Your task to perform on an android device: Check the weather Image 0: 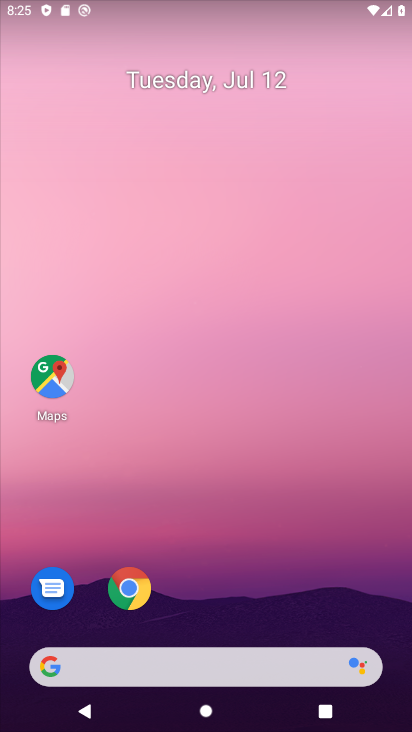
Step 0: drag from (212, 476) to (288, 95)
Your task to perform on an android device: Check the weather Image 1: 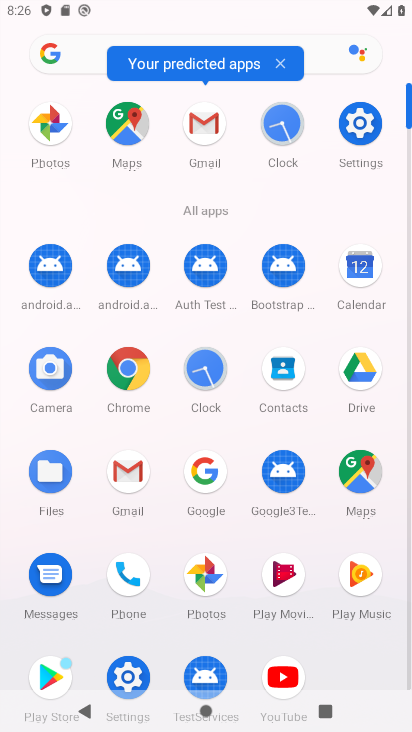
Step 1: click (185, 477)
Your task to perform on an android device: Check the weather Image 2: 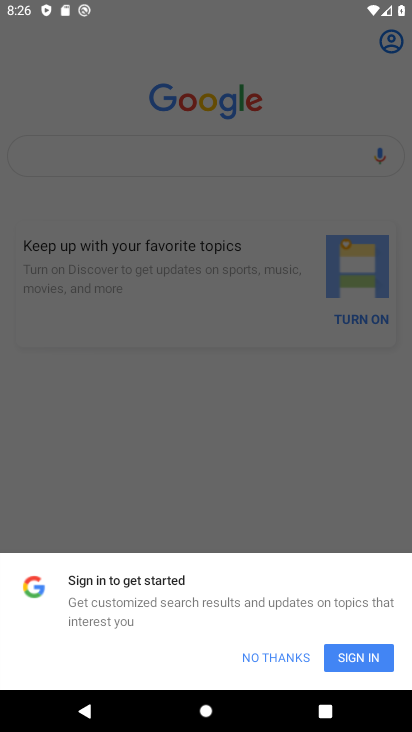
Step 2: click (258, 652)
Your task to perform on an android device: Check the weather Image 3: 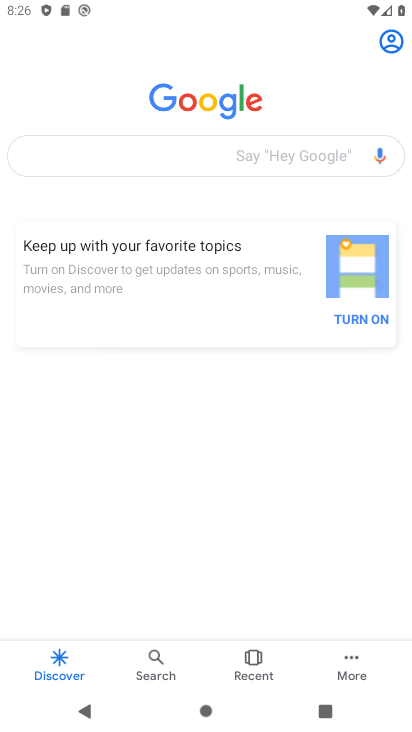
Step 3: click (213, 151)
Your task to perform on an android device: Check the weather Image 4: 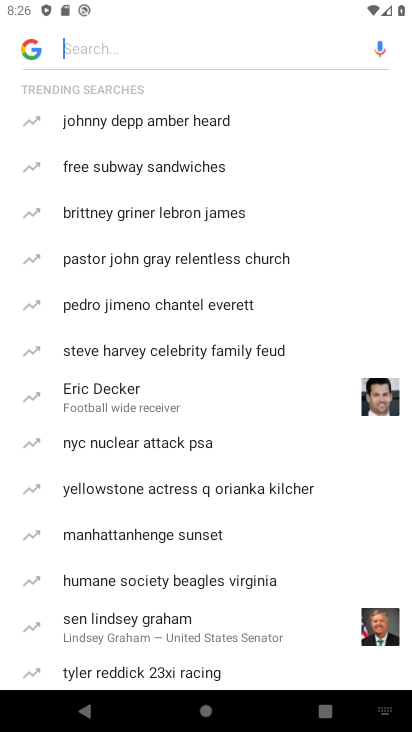
Step 4: type "weather"
Your task to perform on an android device: Check the weather Image 5: 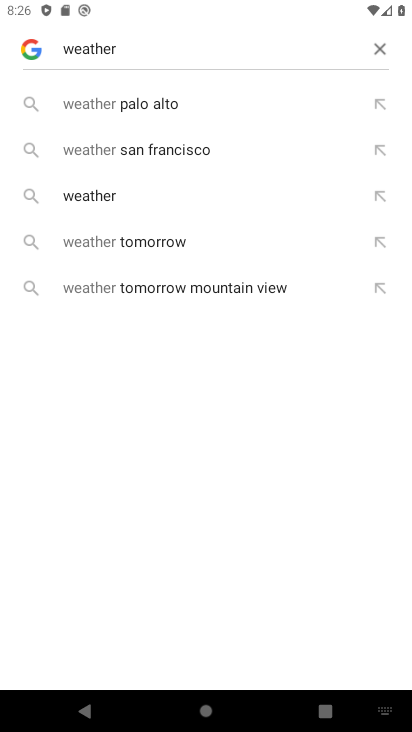
Step 5: click (149, 208)
Your task to perform on an android device: Check the weather Image 6: 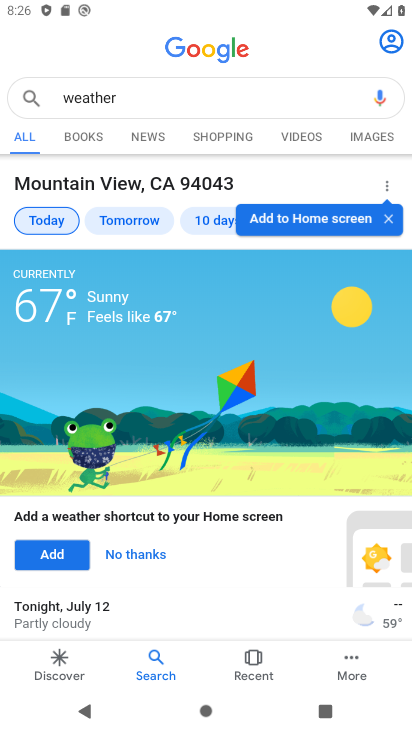
Step 6: task complete